Your task to perform on an android device: Open CNN.com Image 0: 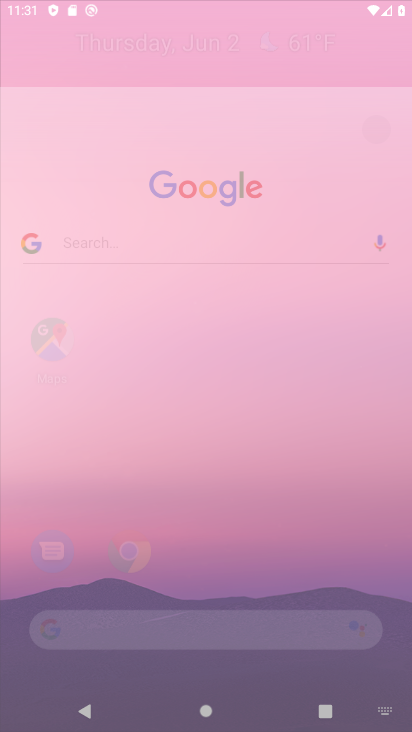
Step 0: drag from (270, 318) to (270, 178)
Your task to perform on an android device: Open CNN.com Image 1: 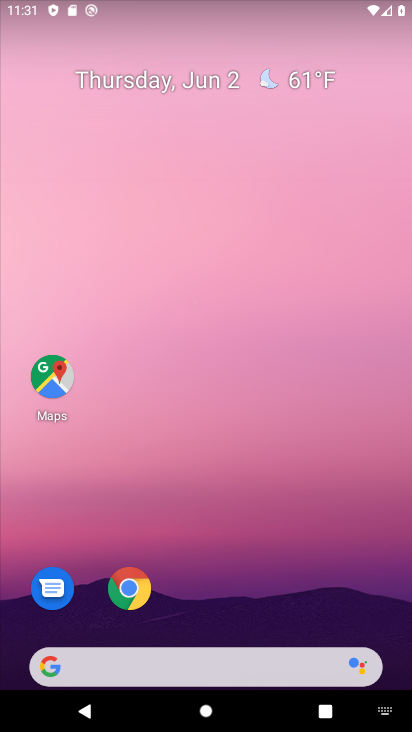
Step 1: drag from (203, 566) to (274, 144)
Your task to perform on an android device: Open CNN.com Image 2: 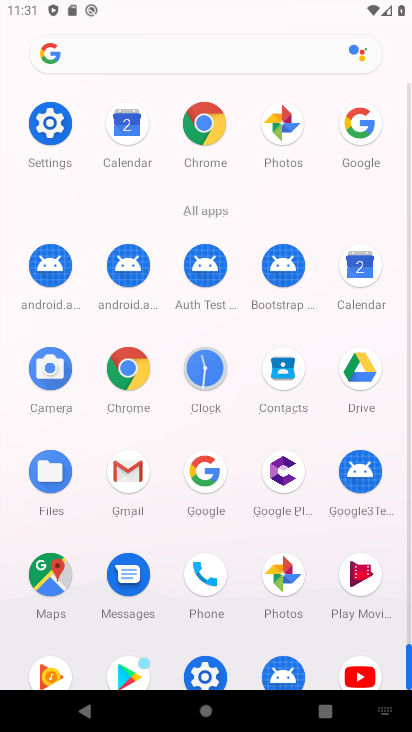
Step 2: click (144, 390)
Your task to perform on an android device: Open CNN.com Image 3: 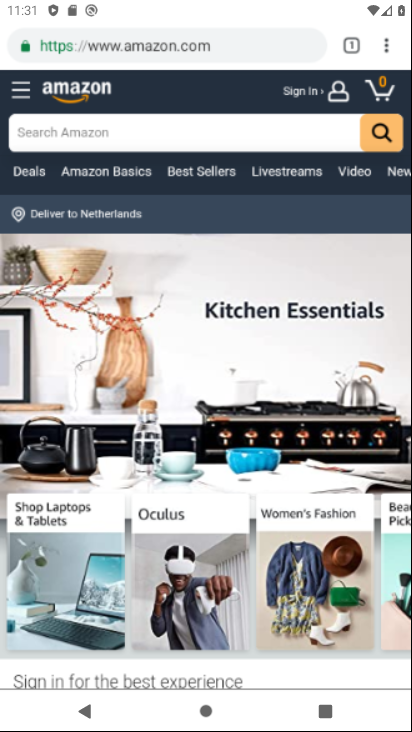
Step 3: click (352, 55)
Your task to perform on an android device: Open CNN.com Image 4: 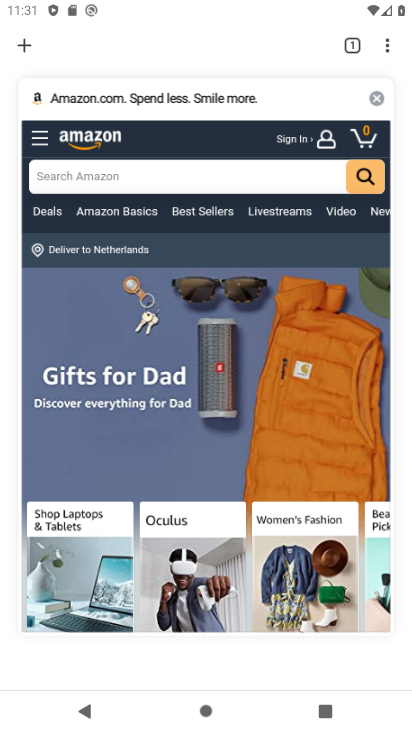
Step 4: click (32, 45)
Your task to perform on an android device: Open CNN.com Image 5: 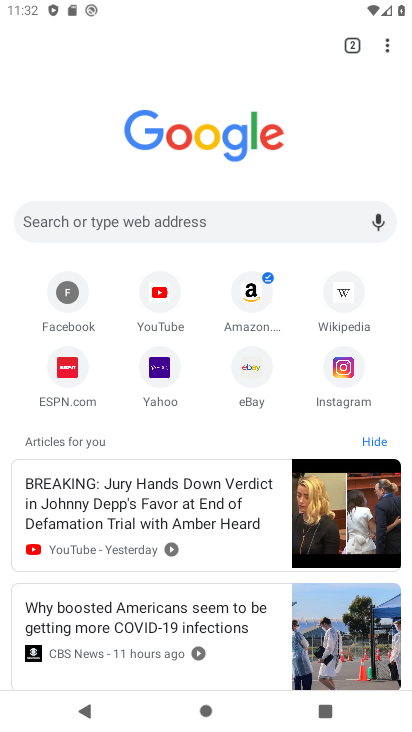
Step 5: click (194, 225)
Your task to perform on an android device: Open CNN.com Image 6: 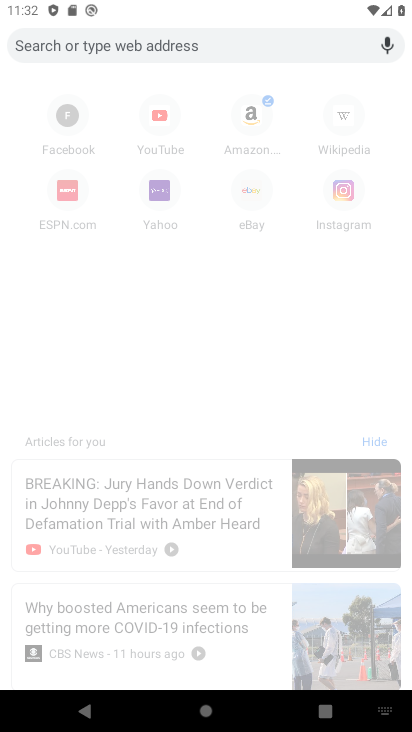
Step 6: type "CNN.com"
Your task to perform on an android device: Open CNN.com Image 7: 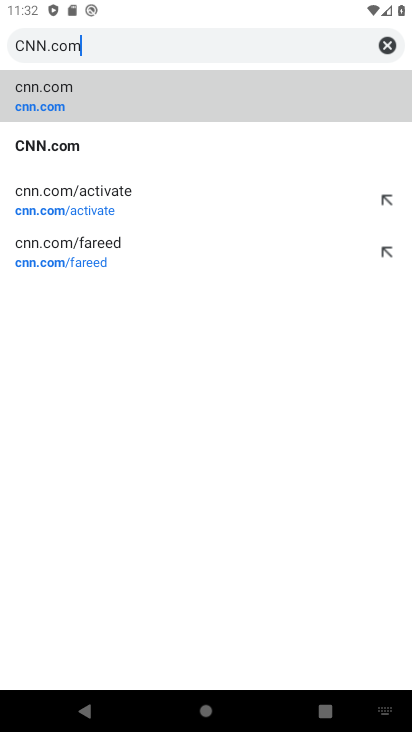
Step 7: type ""
Your task to perform on an android device: Open CNN.com Image 8: 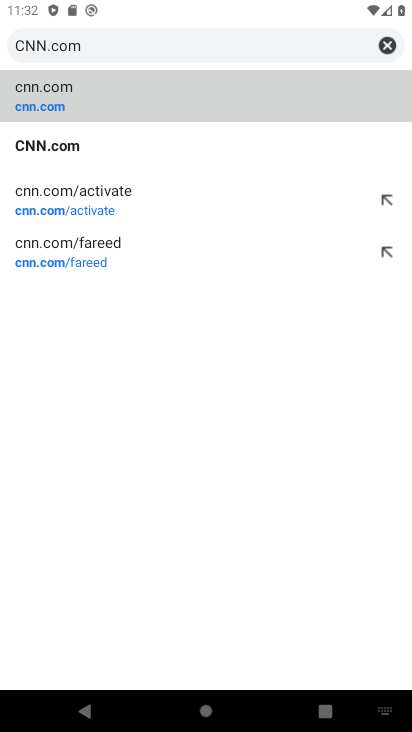
Step 8: click (123, 102)
Your task to perform on an android device: Open CNN.com Image 9: 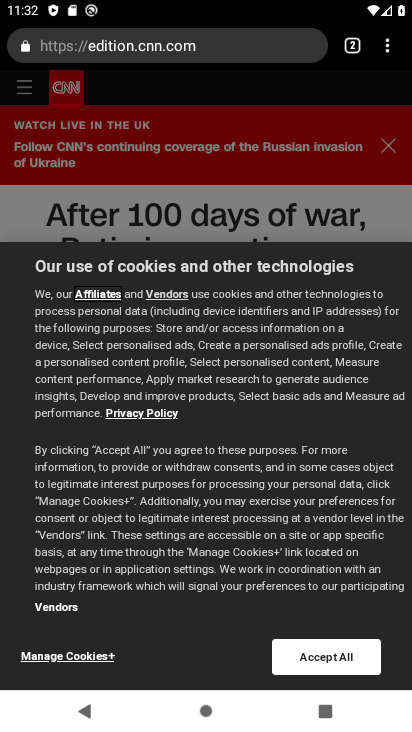
Step 9: click (325, 667)
Your task to perform on an android device: Open CNN.com Image 10: 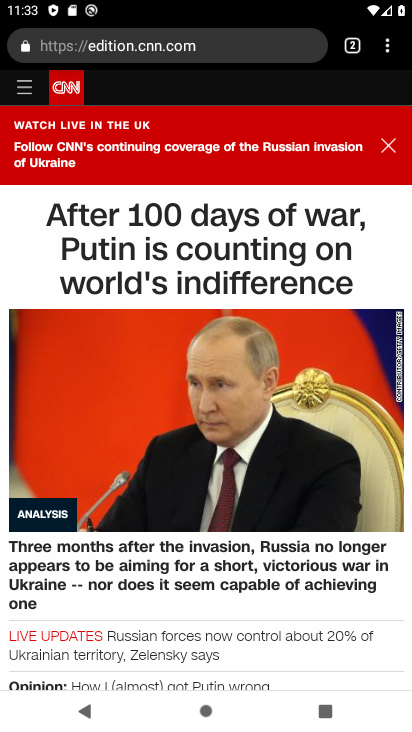
Step 10: task complete